Your task to perform on an android device: turn off data saver in the chrome app Image 0: 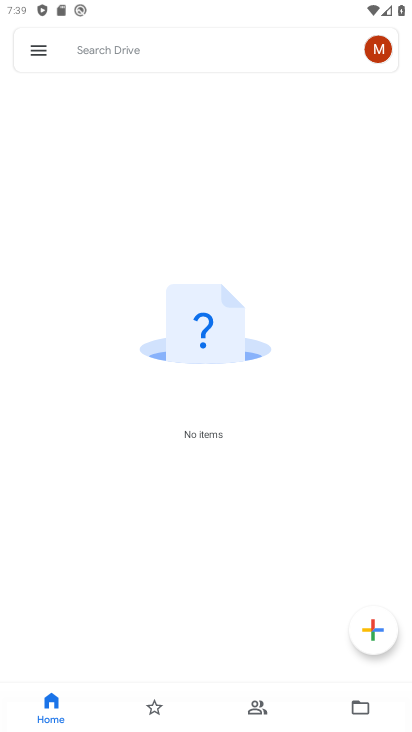
Step 0: press home button
Your task to perform on an android device: turn off data saver in the chrome app Image 1: 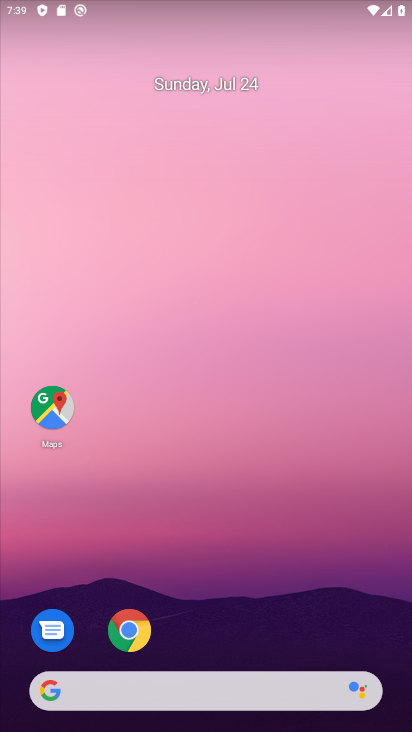
Step 1: click (129, 628)
Your task to perform on an android device: turn off data saver in the chrome app Image 2: 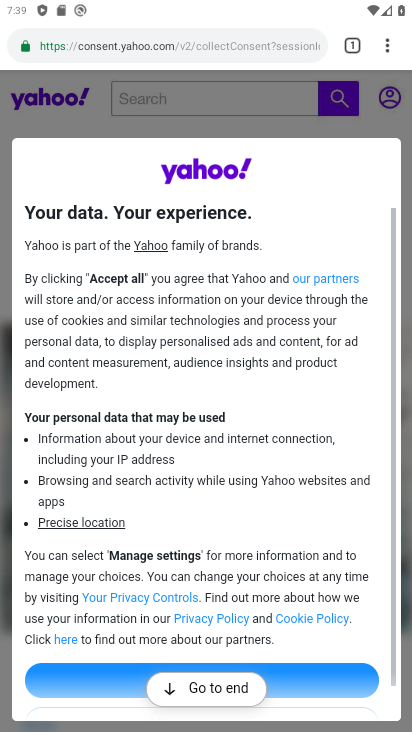
Step 2: click (382, 48)
Your task to perform on an android device: turn off data saver in the chrome app Image 3: 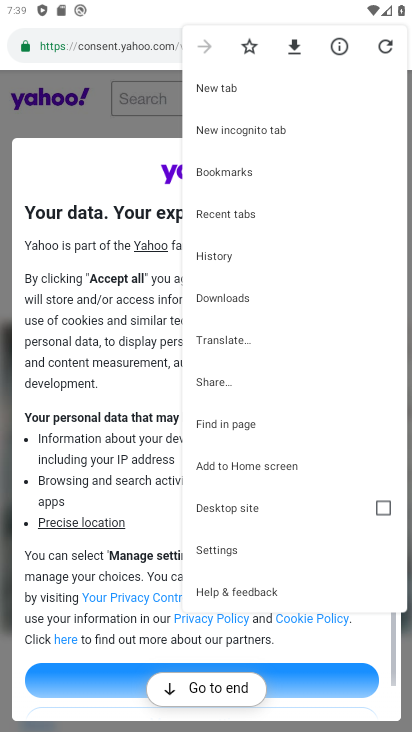
Step 3: click (243, 550)
Your task to perform on an android device: turn off data saver in the chrome app Image 4: 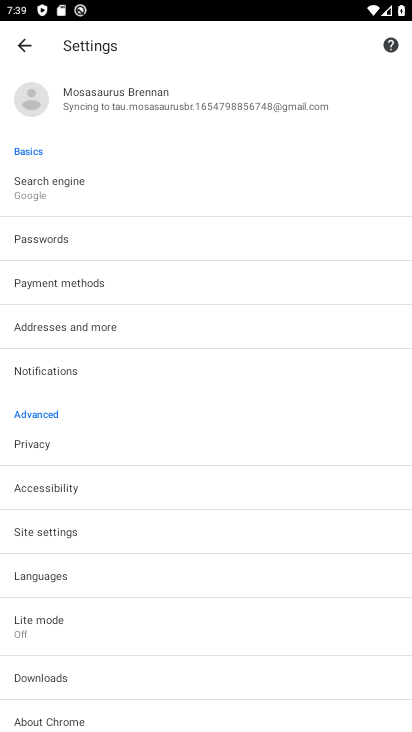
Step 4: click (82, 617)
Your task to perform on an android device: turn off data saver in the chrome app Image 5: 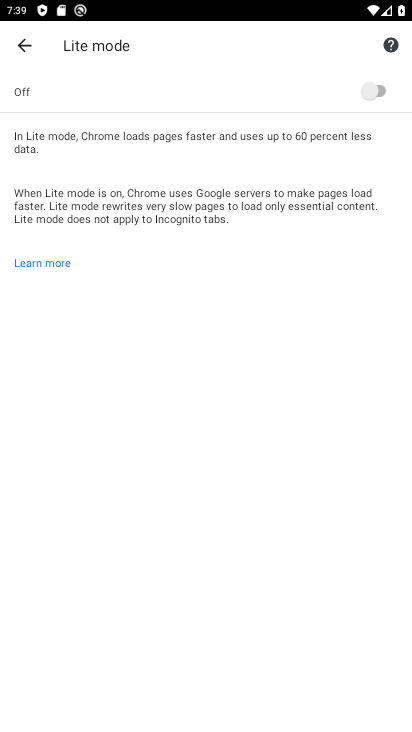
Step 5: task complete